Your task to perform on an android device: star an email in the gmail app Image 0: 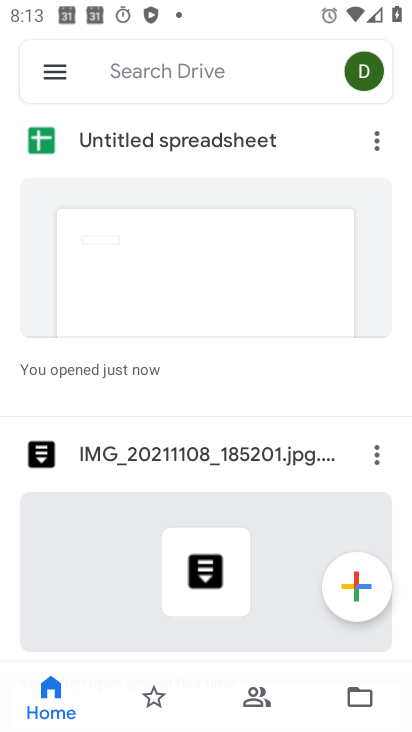
Step 0: press home button
Your task to perform on an android device: star an email in the gmail app Image 1: 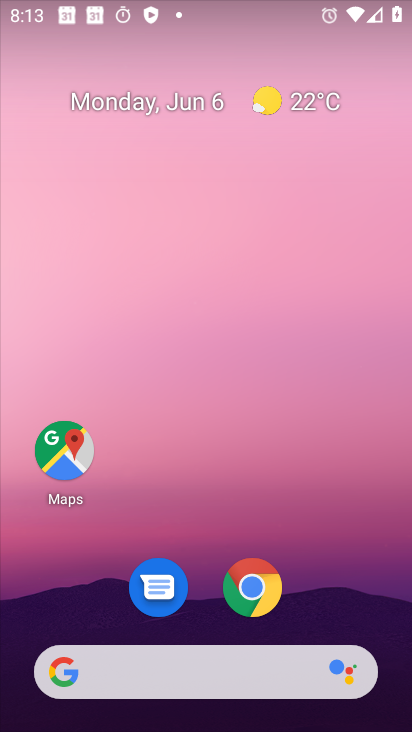
Step 1: drag from (137, 674) to (137, 442)
Your task to perform on an android device: star an email in the gmail app Image 2: 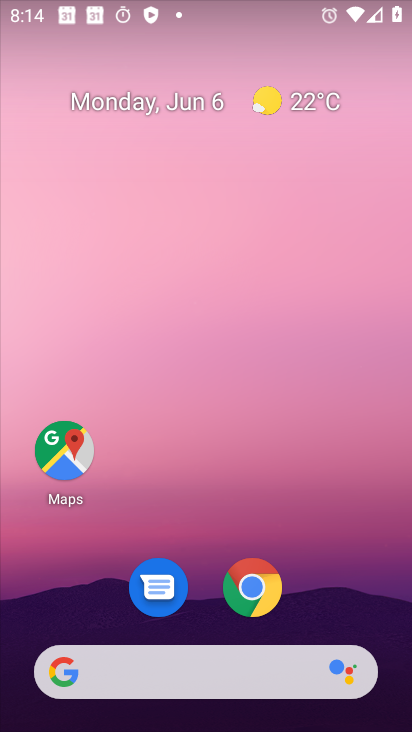
Step 2: drag from (209, 647) to (199, 240)
Your task to perform on an android device: star an email in the gmail app Image 3: 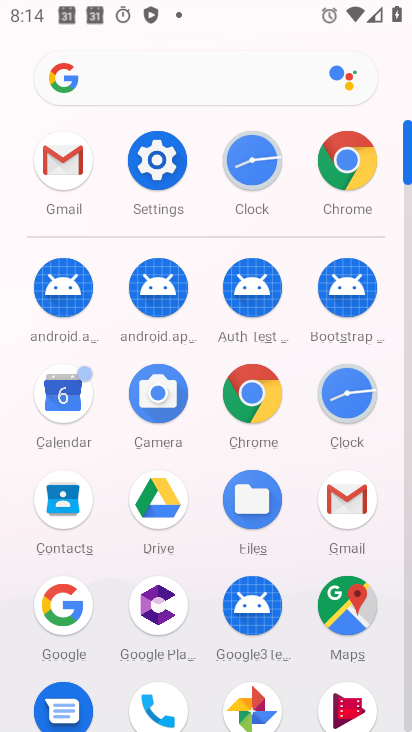
Step 3: click (367, 500)
Your task to perform on an android device: star an email in the gmail app Image 4: 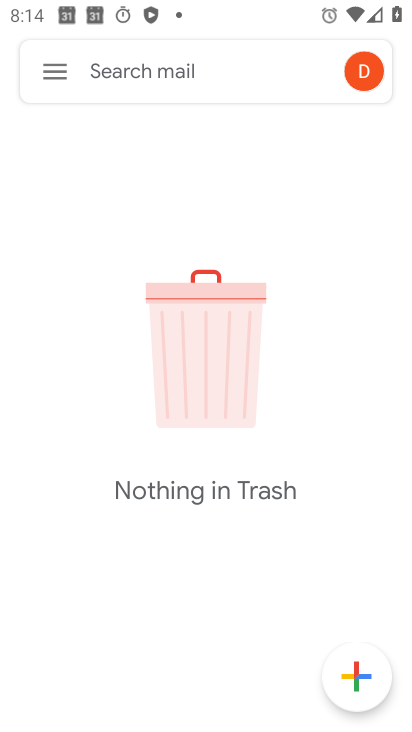
Step 4: click (46, 74)
Your task to perform on an android device: star an email in the gmail app Image 5: 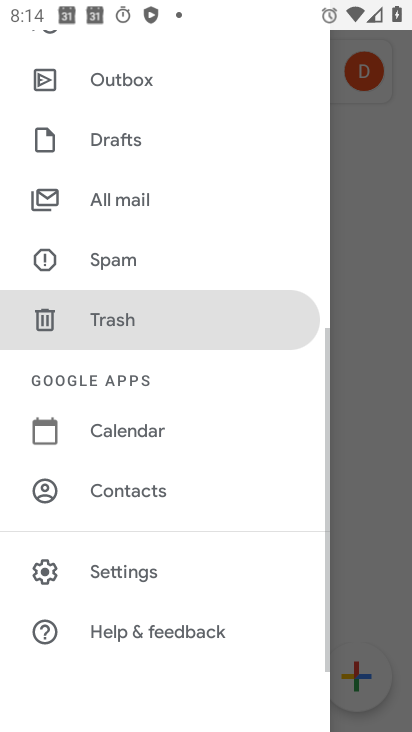
Step 5: drag from (174, 109) to (169, 555)
Your task to perform on an android device: star an email in the gmail app Image 6: 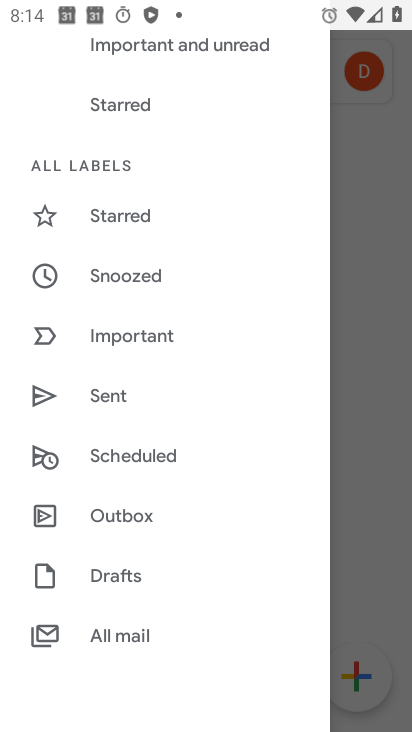
Step 6: drag from (128, 106) to (133, 443)
Your task to perform on an android device: star an email in the gmail app Image 7: 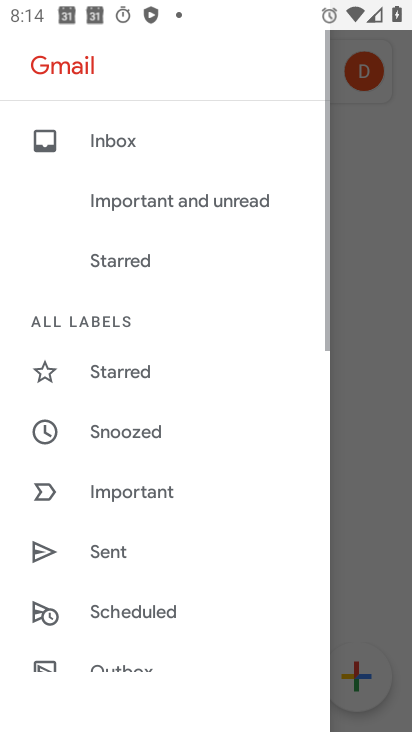
Step 7: click (116, 142)
Your task to perform on an android device: star an email in the gmail app Image 8: 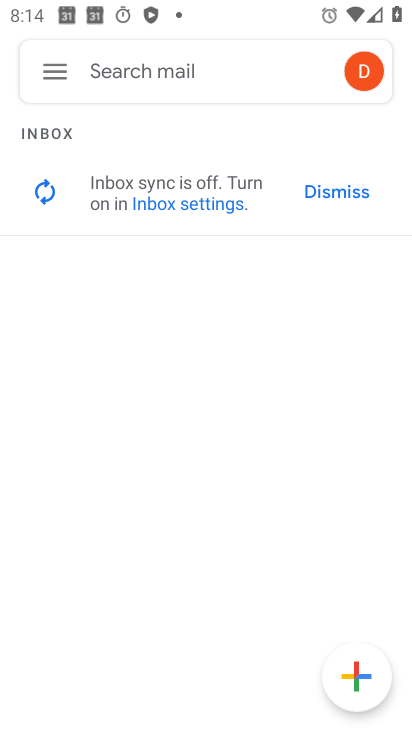
Step 8: task complete